Your task to perform on an android device: Go to accessibility settings Image 0: 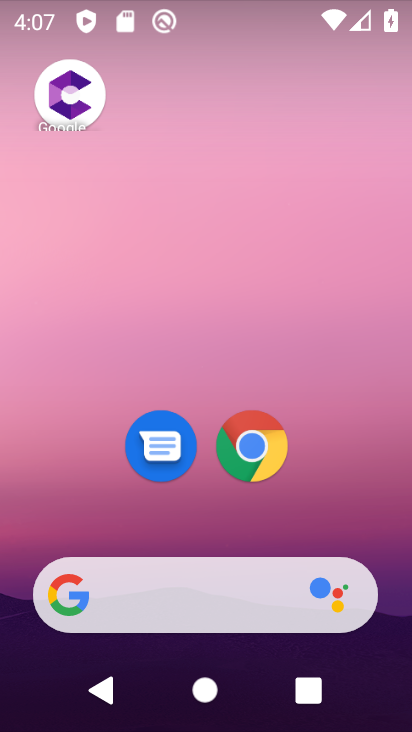
Step 0: drag from (226, 721) to (205, 80)
Your task to perform on an android device: Go to accessibility settings Image 1: 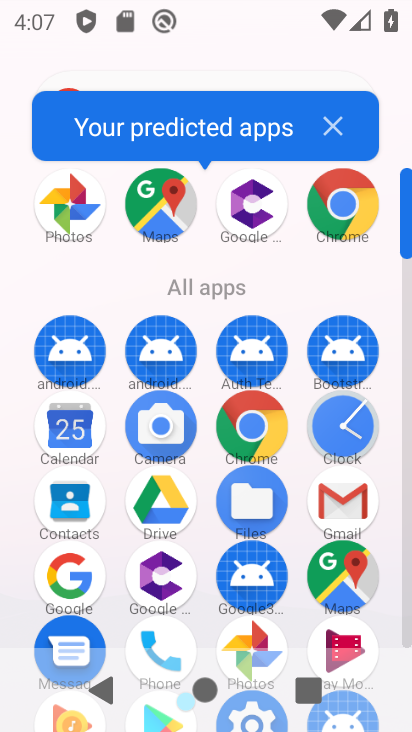
Step 1: drag from (291, 640) to (284, 399)
Your task to perform on an android device: Go to accessibility settings Image 2: 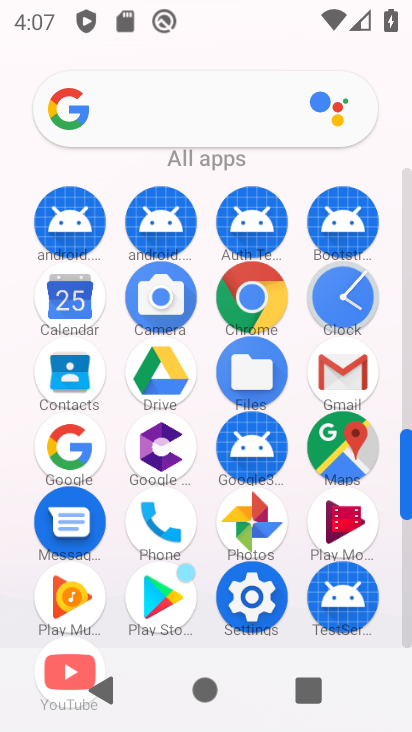
Step 2: click (251, 600)
Your task to perform on an android device: Go to accessibility settings Image 3: 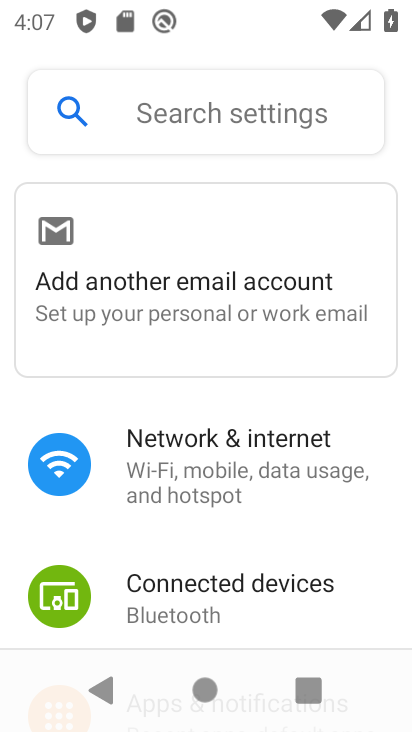
Step 3: drag from (232, 603) to (229, 214)
Your task to perform on an android device: Go to accessibility settings Image 4: 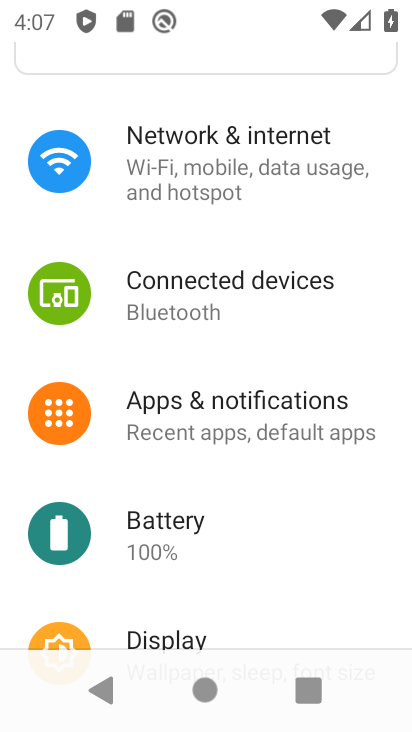
Step 4: drag from (215, 608) to (215, 222)
Your task to perform on an android device: Go to accessibility settings Image 5: 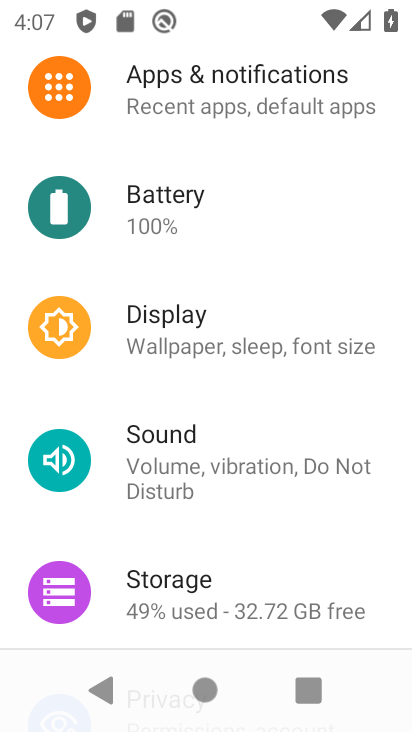
Step 5: drag from (197, 609) to (197, 63)
Your task to perform on an android device: Go to accessibility settings Image 6: 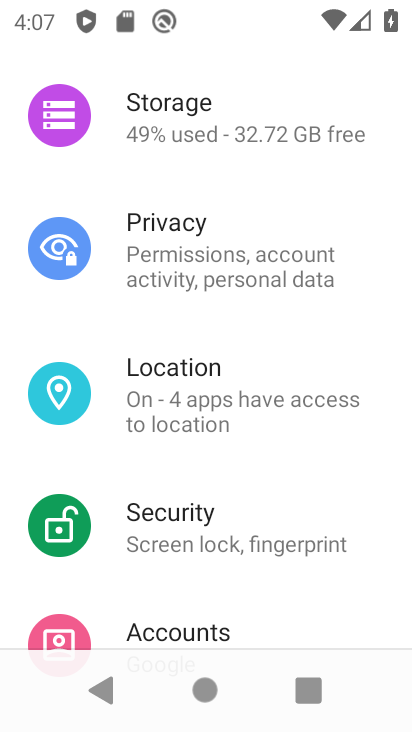
Step 6: drag from (191, 588) to (200, 159)
Your task to perform on an android device: Go to accessibility settings Image 7: 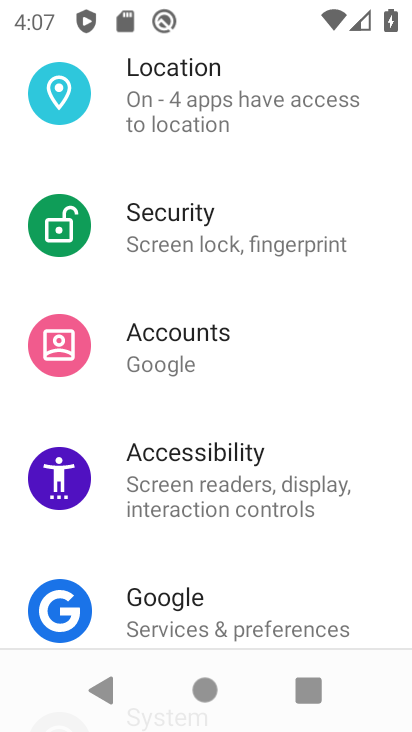
Step 7: click (197, 478)
Your task to perform on an android device: Go to accessibility settings Image 8: 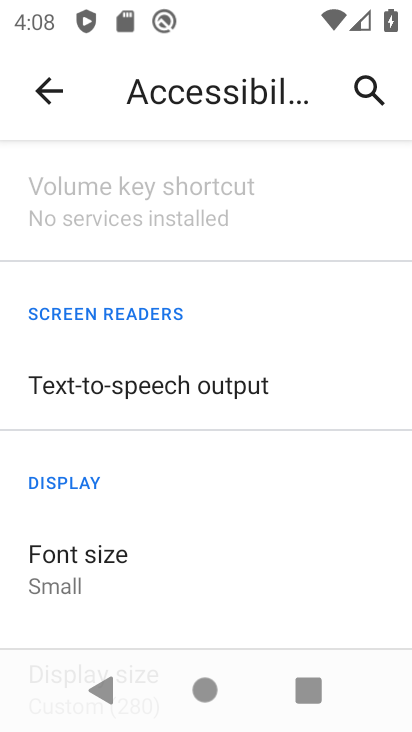
Step 8: task complete